Your task to perform on an android device: Open Chrome and go to the settings page Image 0: 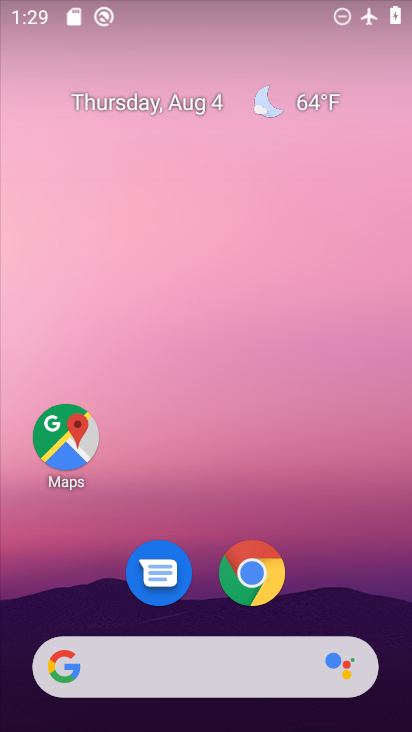
Step 0: drag from (322, 527) to (285, 0)
Your task to perform on an android device: Open Chrome and go to the settings page Image 1: 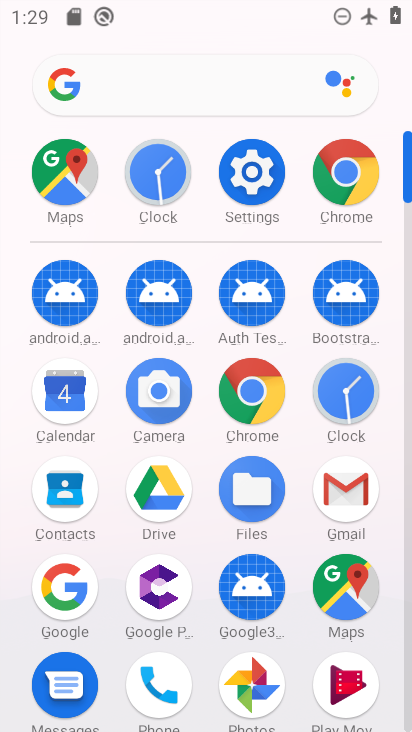
Step 1: click (246, 399)
Your task to perform on an android device: Open Chrome and go to the settings page Image 2: 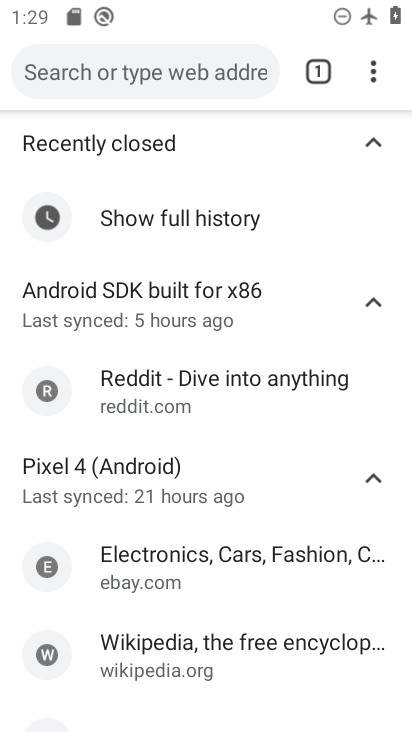
Step 2: task complete